Your task to perform on an android device: Open Youtube and go to "Your channel" Image 0: 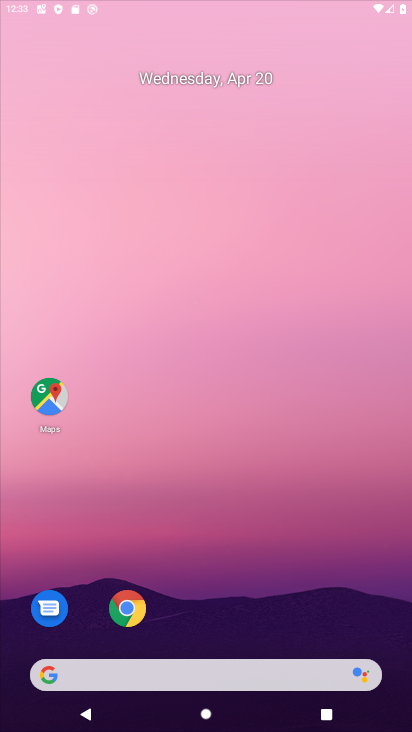
Step 0: drag from (359, 599) to (297, 269)
Your task to perform on an android device: Open Youtube and go to "Your channel" Image 1: 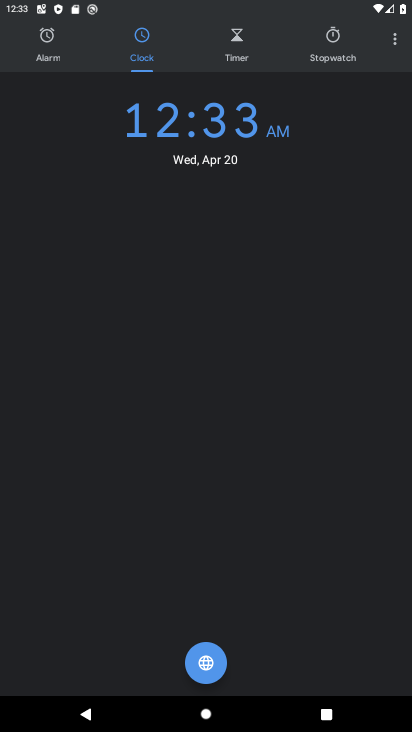
Step 1: press home button
Your task to perform on an android device: Open Youtube and go to "Your channel" Image 2: 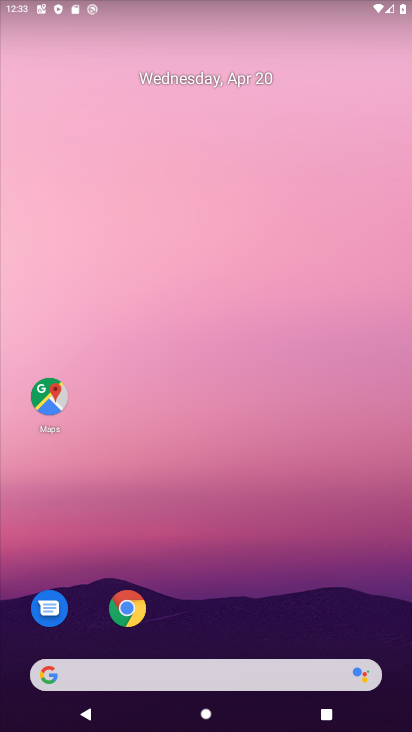
Step 2: drag from (355, 581) to (365, 16)
Your task to perform on an android device: Open Youtube and go to "Your channel" Image 3: 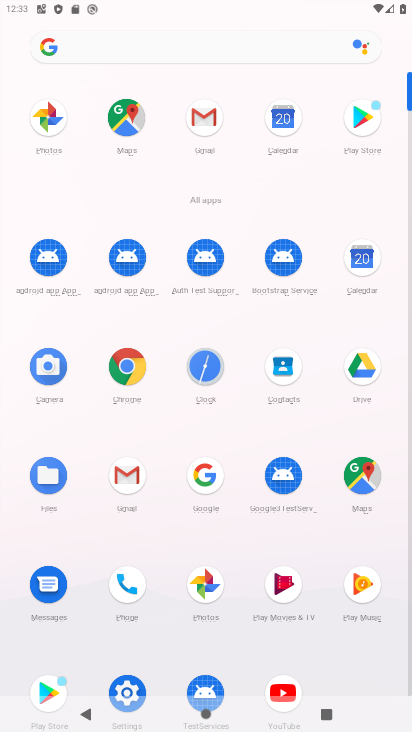
Step 3: click (273, 691)
Your task to perform on an android device: Open Youtube and go to "Your channel" Image 4: 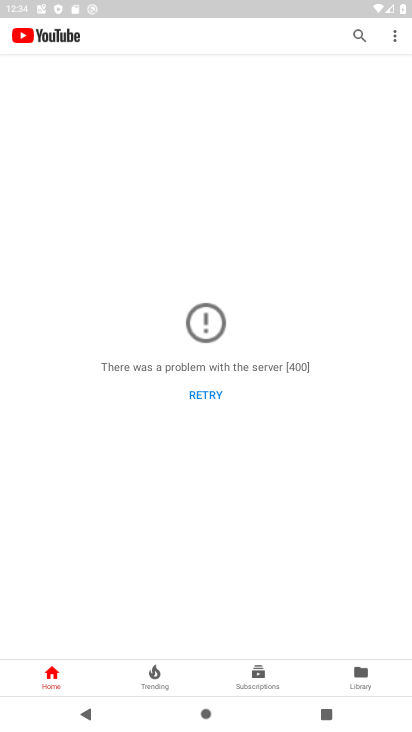
Step 4: click (366, 681)
Your task to perform on an android device: Open Youtube and go to "Your channel" Image 5: 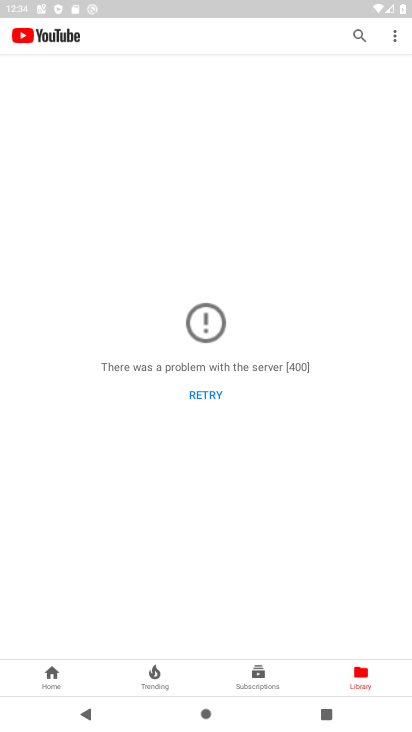
Step 5: task complete